Your task to perform on an android device: turn on priority inbox in the gmail app Image 0: 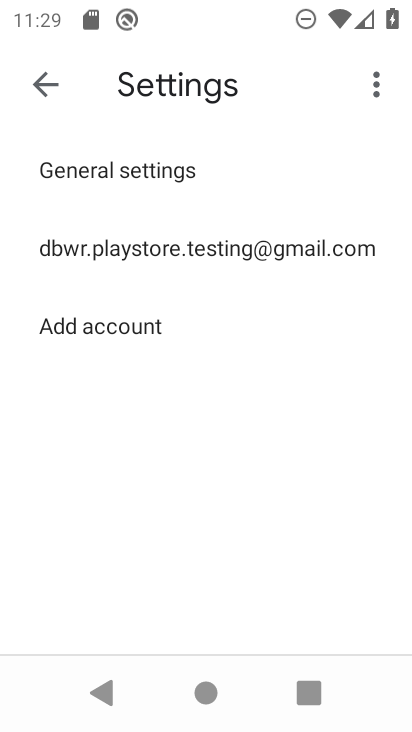
Step 0: click (259, 246)
Your task to perform on an android device: turn on priority inbox in the gmail app Image 1: 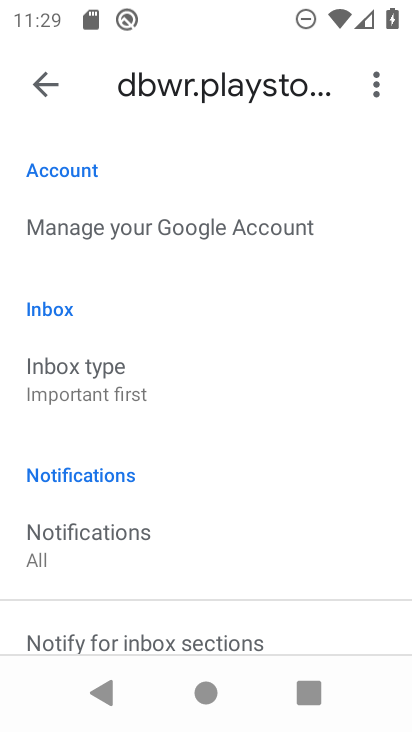
Step 1: drag from (182, 426) to (192, 215)
Your task to perform on an android device: turn on priority inbox in the gmail app Image 2: 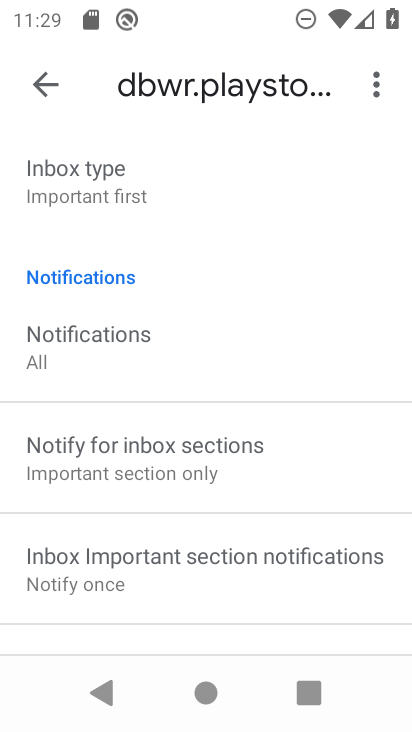
Step 2: click (145, 203)
Your task to perform on an android device: turn on priority inbox in the gmail app Image 3: 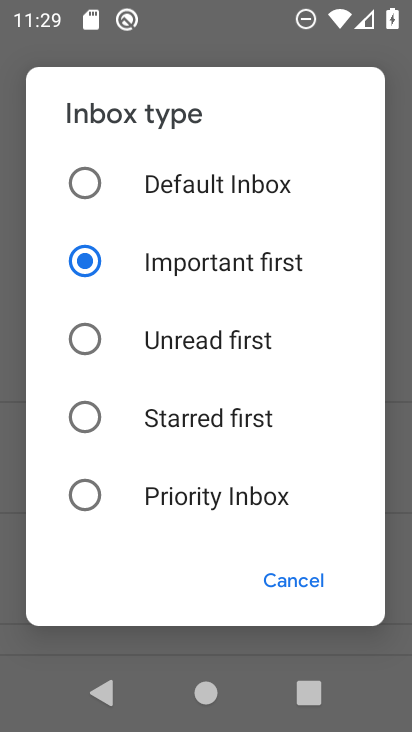
Step 3: click (212, 488)
Your task to perform on an android device: turn on priority inbox in the gmail app Image 4: 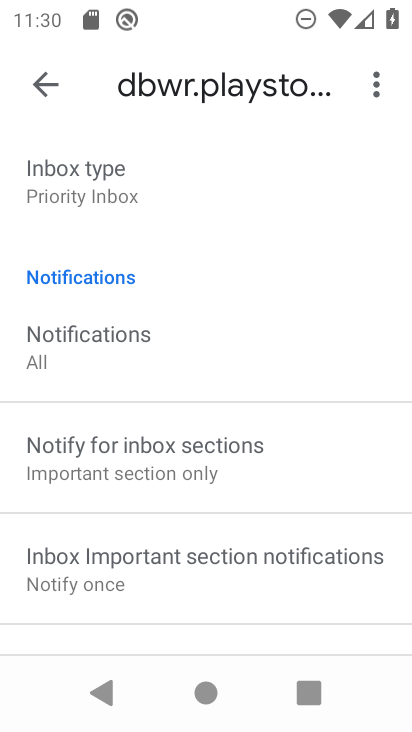
Step 4: task complete